Your task to perform on an android device: delete a single message in the gmail app Image 0: 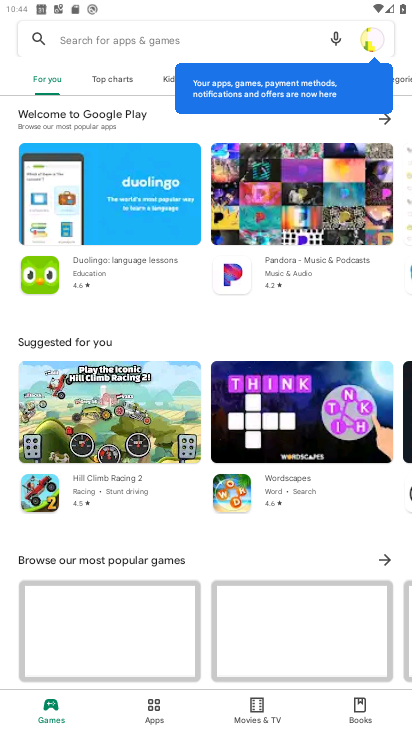
Step 0: press home button
Your task to perform on an android device: delete a single message in the gmail app Image 1: 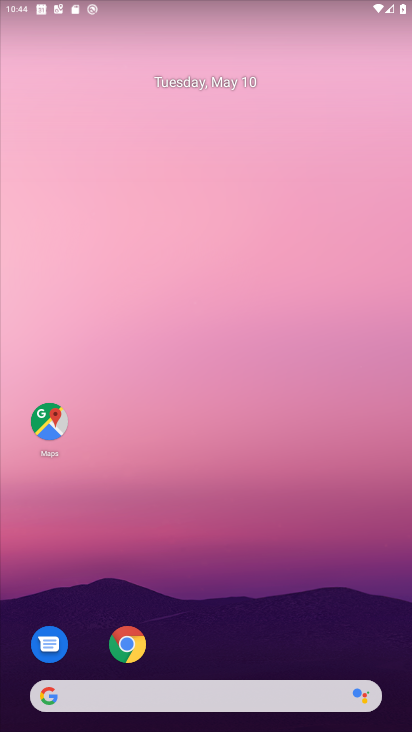
Step 1: drag from (231, 650) to (287, 192)
Your task to perform on an android device: delete a single message in the gmail app Image 2: 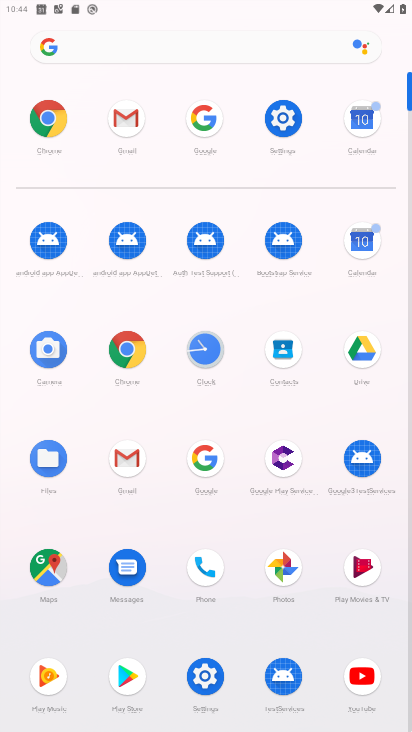
Step 2: click (135, 126)
Your task to perform on an android device: delete a single message in the gmail app Image 3: 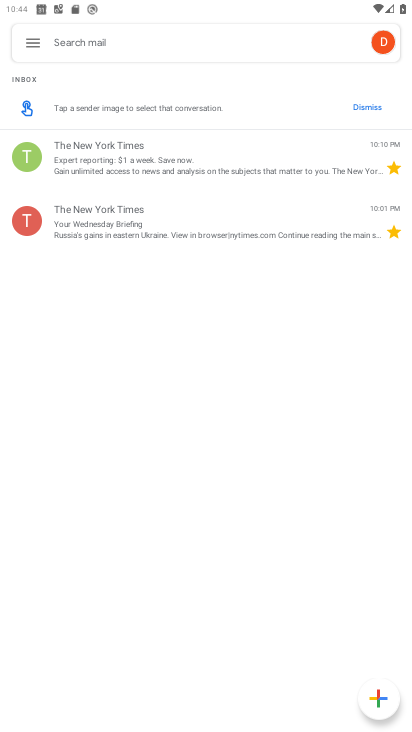
Step 3: click (164, 174)
Your task to perform on an android device: delete a single message in the gmail app Image 4: 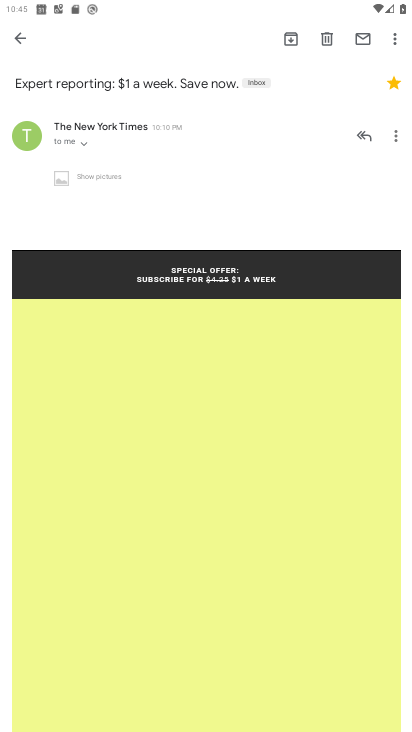
Step 4: click (328, 39)
Your task to perform on an android device: delete a single message in the gmail app Image 5: 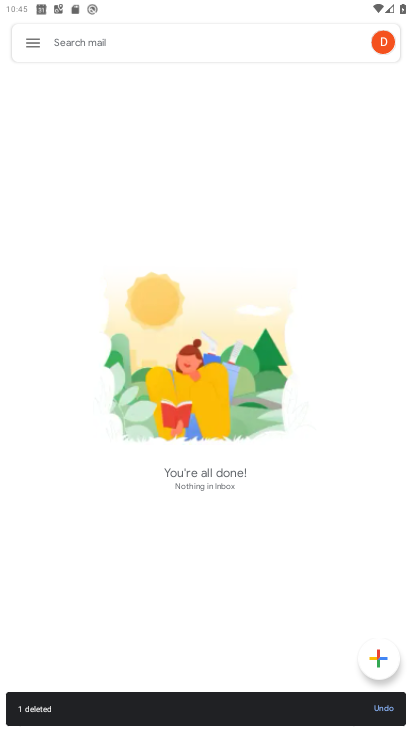
Step 5: task complete